Your task to perform on an android device: add a contact Image 0: 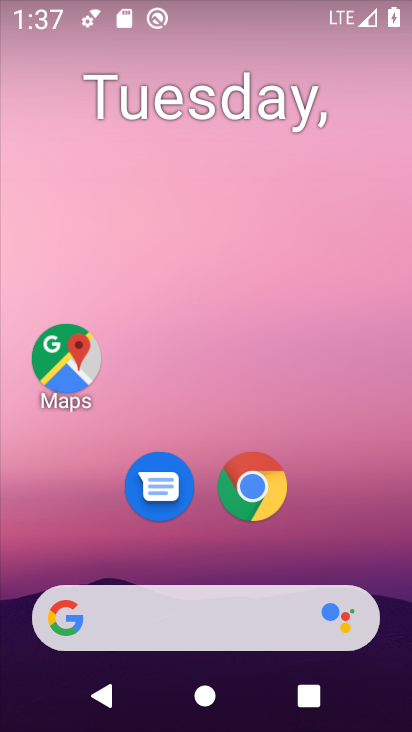
Step 0: press home button
Your task to perform on an android device: add a contact Image 1: 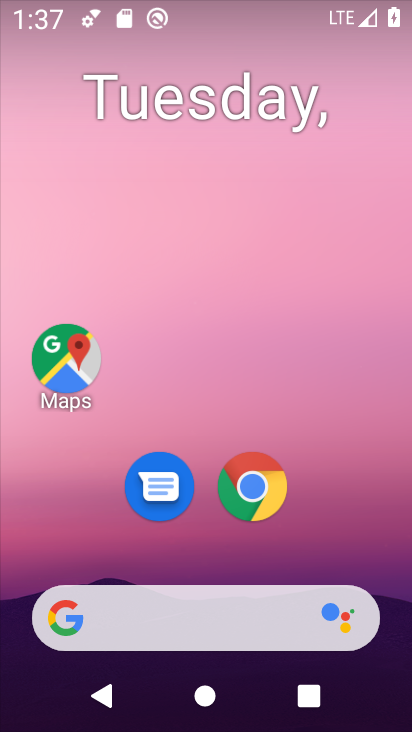
Step 1: drag from (348, 534) to (352, 124)
Your task to perform on an android device: add a contact Image 2: 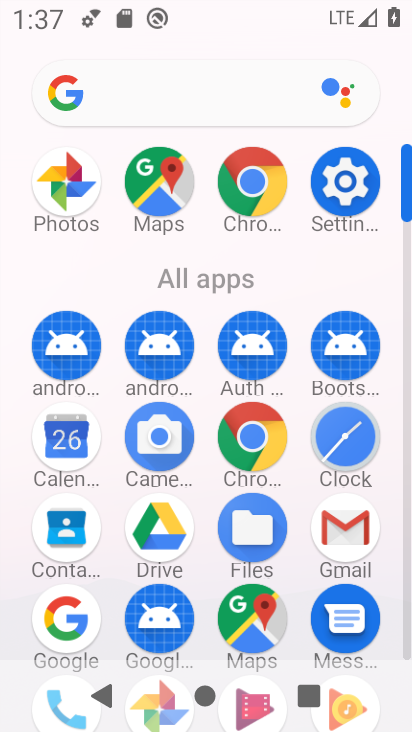
Step 2: click (71, 533)
Your task to perform on an android device: add a contact Image 3: 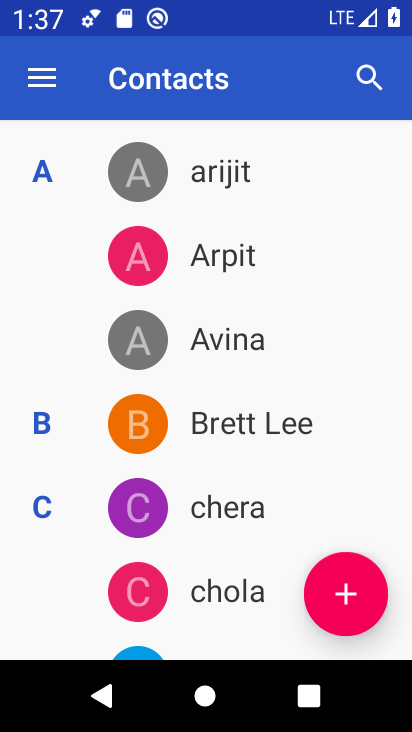
Step 3: click (361, 586)
Your task to perform on an android device: add a contact Image 4: 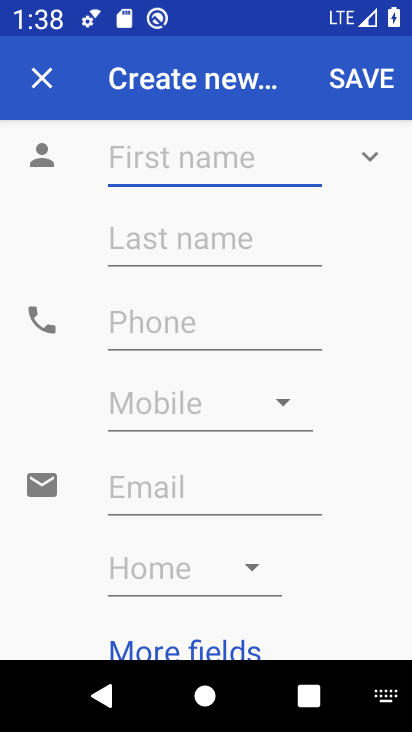
Step 4: type "kk"
Your task to perform on an android device: add a contact Image 5: 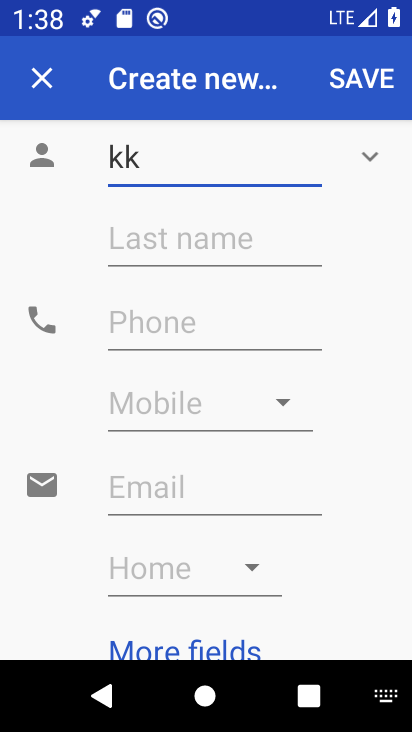
Step 5: click (189, 327)
Your task to perform on an android device: add a contact Image 6: 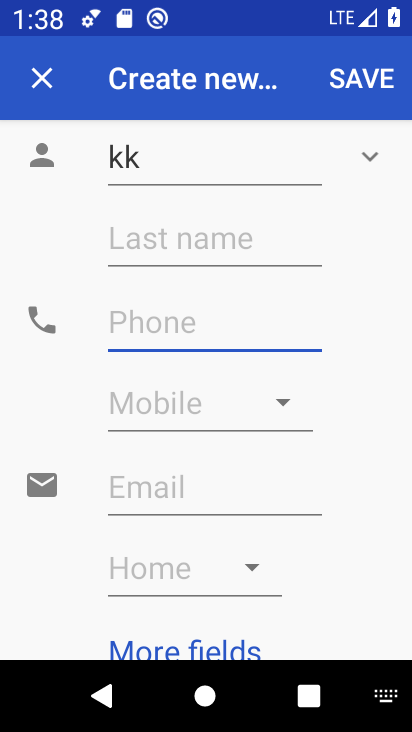
Step 6: type "4556778"
Your task to perform on an android device: add a contact Image 7: 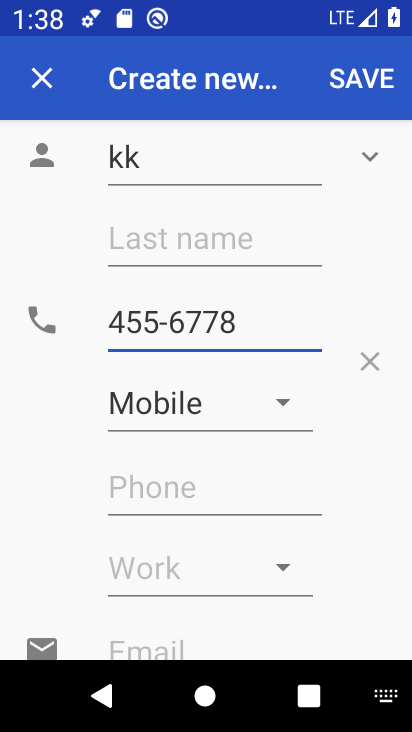
Step 7: click (365, 80)
Your task to perform on an android device: add a contact Image 8: 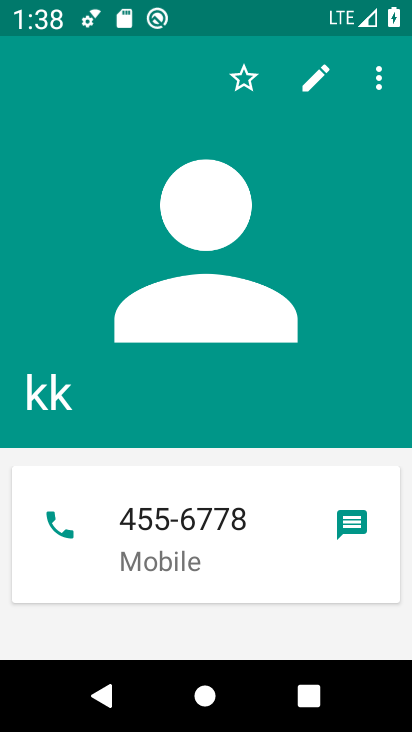
Step 8: task complete